Your task to perform on an android device: Toggle the flashlight Image 0: 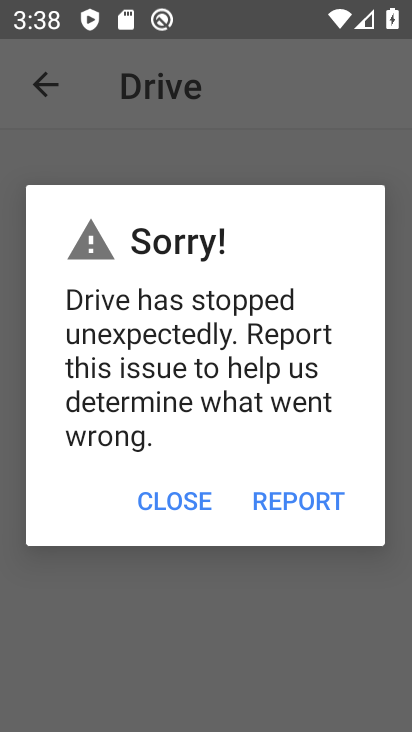
Step 0: press back button
Your task to perform on an android device: Toggle the flashlight Image 1: 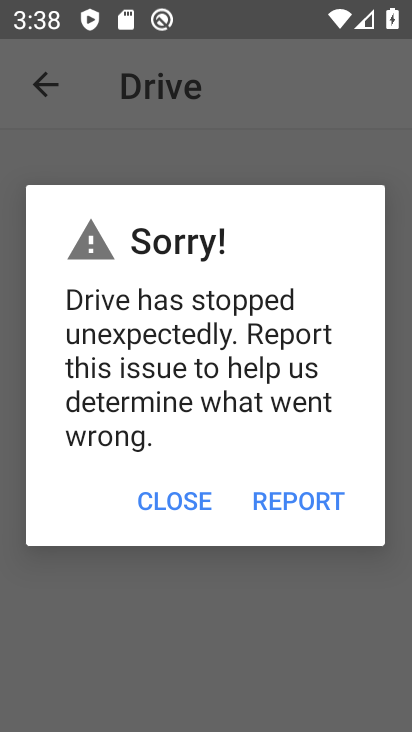
Step 1: task complete